Your task to perform on an android device: What's on my calendar tomorrow? Image 0: 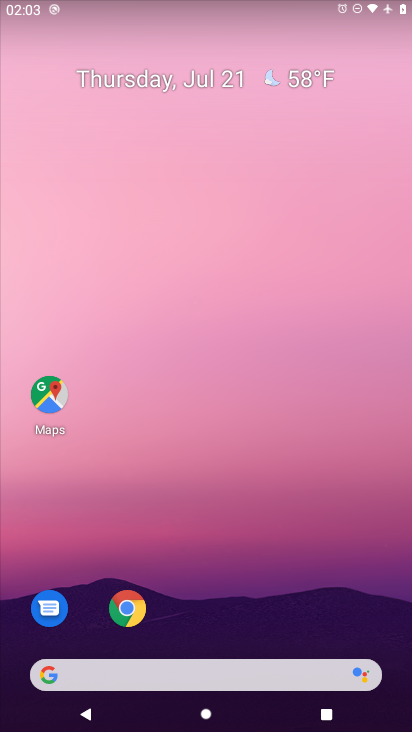
Step 0: drag from (238, 634) to (322, 20)
Your task to perform on an android device: What's on my calendar tomorrow? Image 1: 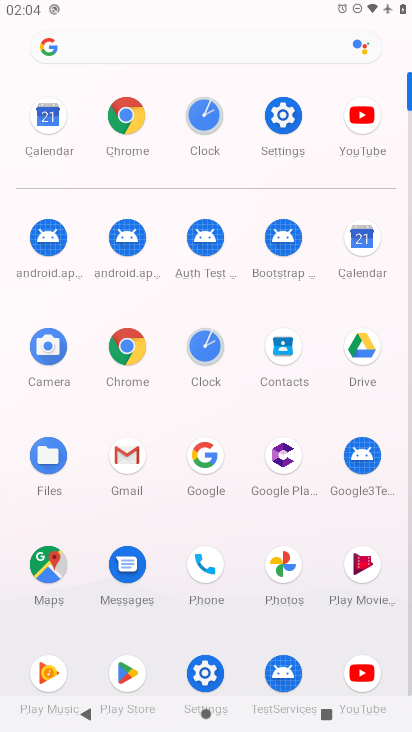
Step 1: click (357, 246)
Your task to perform on an android device: What's on my calendar tomorrow? Image 2: 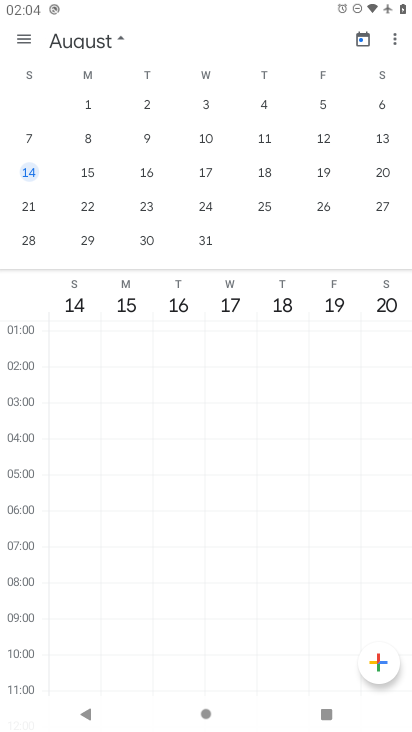
Step 2: drag from (128, 141) to (404, 151)
Your task to perform on an android device: What's on my calendar tomorrow? Image 3: 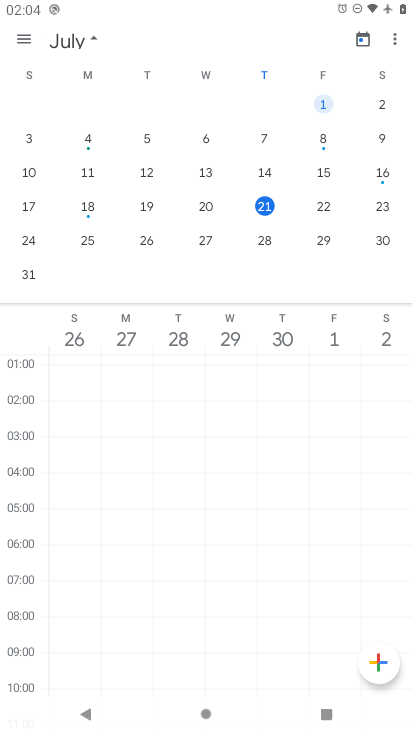
Step 3: click (319, 213)
Your task to perform on an android device: What's on my calendar tomorrow? Image 4: 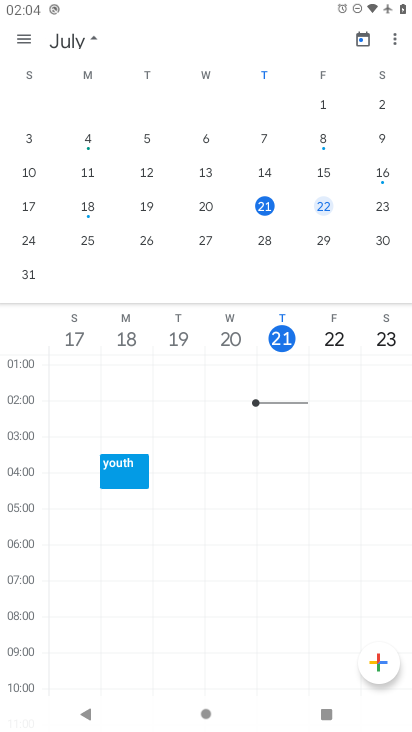
Step 4: task complete